Your task to perform on an android device: change keyboard looks Image 0: 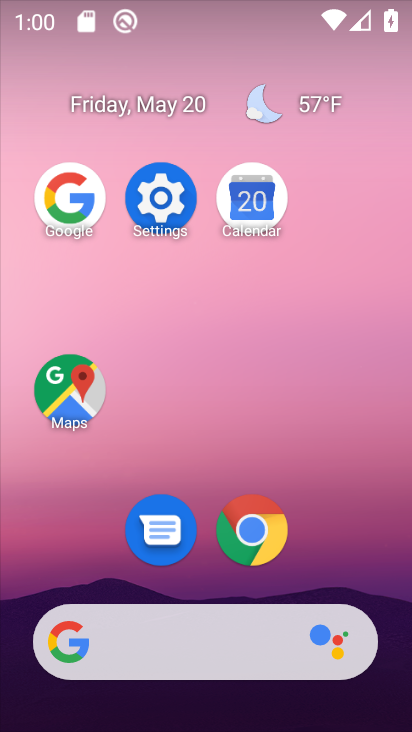
Step 0: click (164, 187)
Your task to perform on an android device: change keyboard looks Image 1: 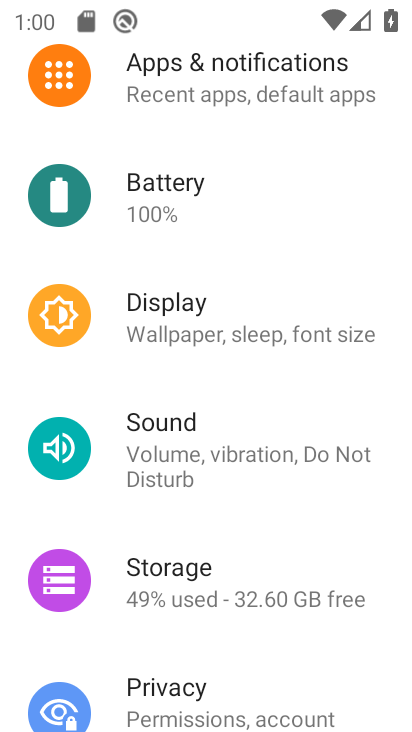
Step 1: drag from (220, 626) to (251, 182)
Your task to perform on an android device: change keyboard looks Image 2: 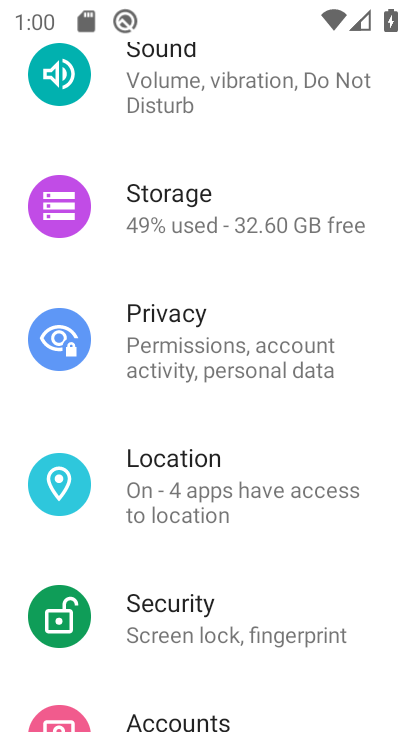
Step 2: drag from (316, 596) to (275, 176)
Your task to perform on an android device: change keyboard looks Image 3: 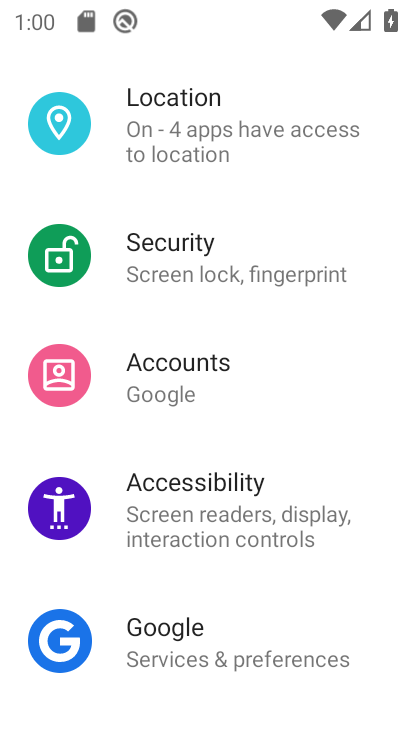
Step 3: drag from (205, 582) to (237, 205)
Your task to perform on an android device: change keyboard looks Image 4: 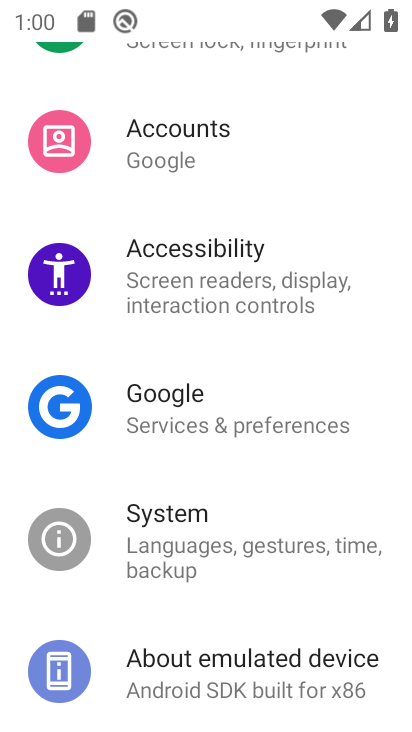
Step 4: click (243, 523)
Your task to perform on an android device: change keyboard looks Image 5: 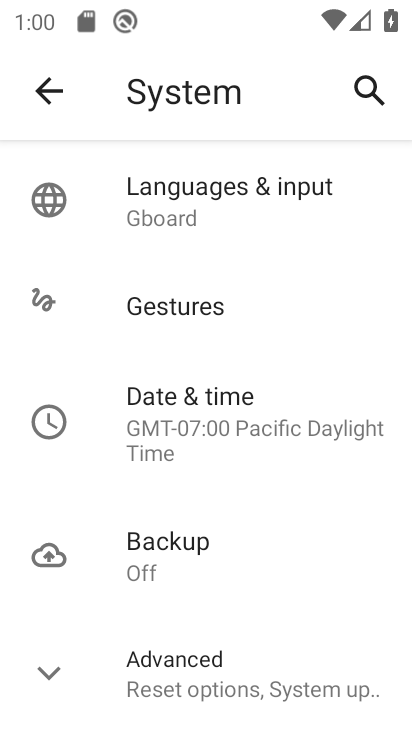
Step 5: click (254, 226)
Your task to perform on an android device: change keyboard looks Image 6: 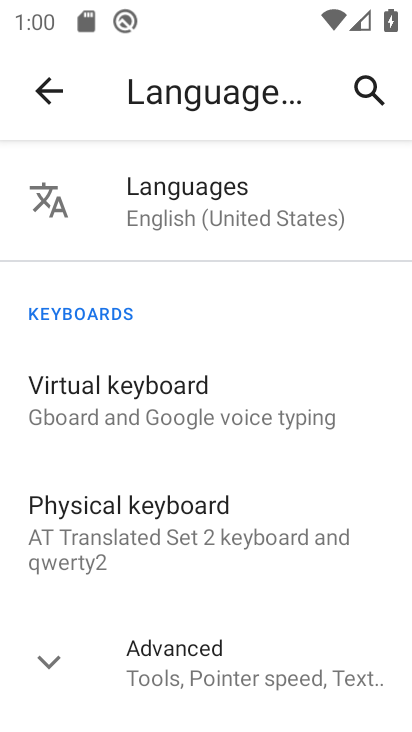
Step 6: click (209, 393)
Your task to perform on an android device: change keyboard looks Image 7: 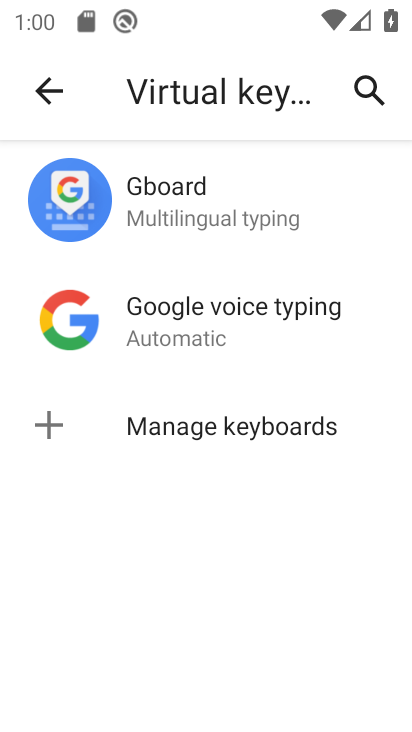
Step 7: click (209, 229)
Your task to perform on an android device: change keyboard looks Image 8: 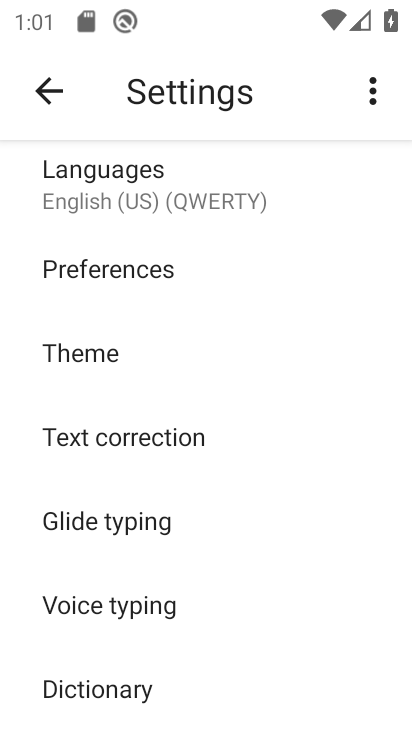
Step 8: click (79, 363)
Your task to perform on an android device: change keyboard looks Image 9: 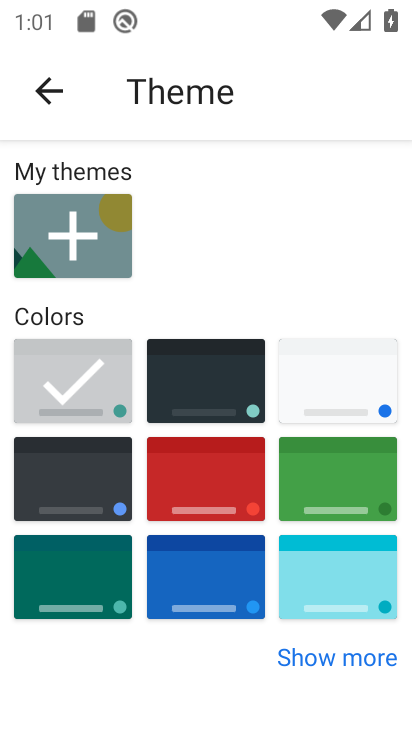
Step 9: click (257, 411)
Your task to perform on an android device: change keyboard looks Image 10: 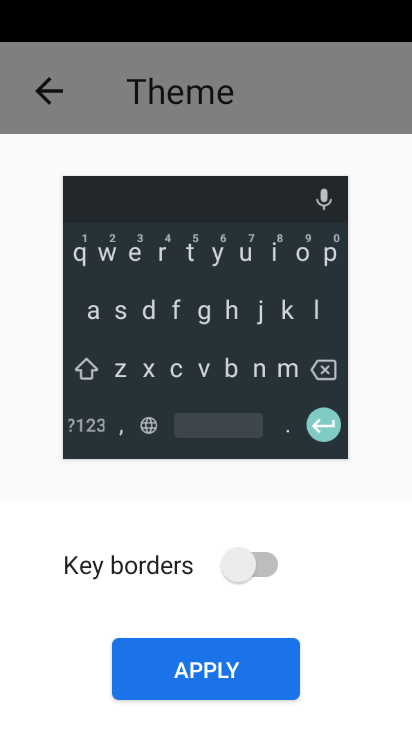
Step 10: click (258, 576)
Your task to perform on an android device: change keyboard looks Image 11: 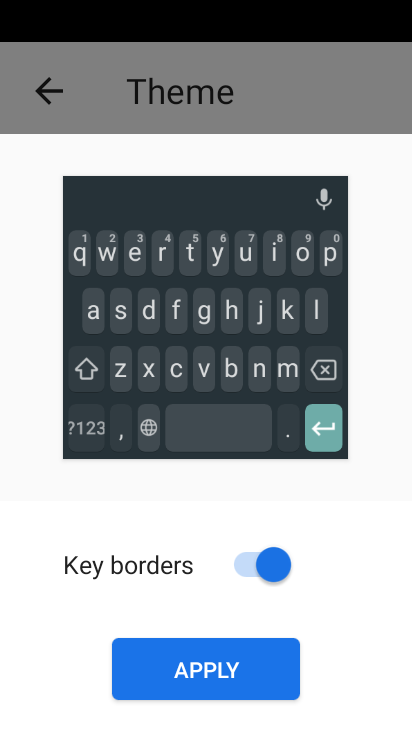
Step 11: click (235, 659)
Your task to perform on an android device: change keyboard looks Image 12: 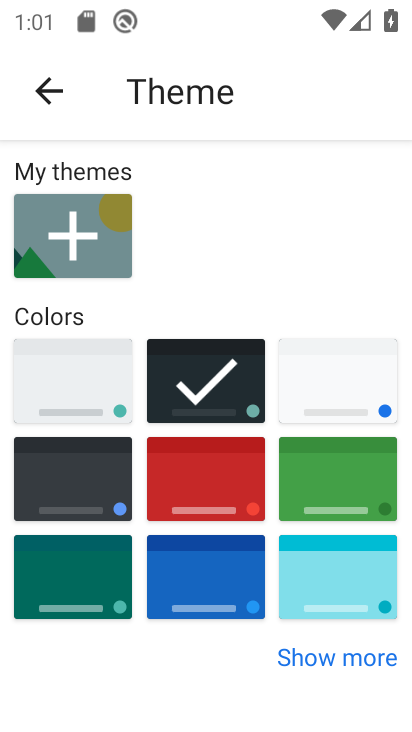
Step 12: task complete